Your task to perform on an android device: delete browsing data in the chrome app Image 0: 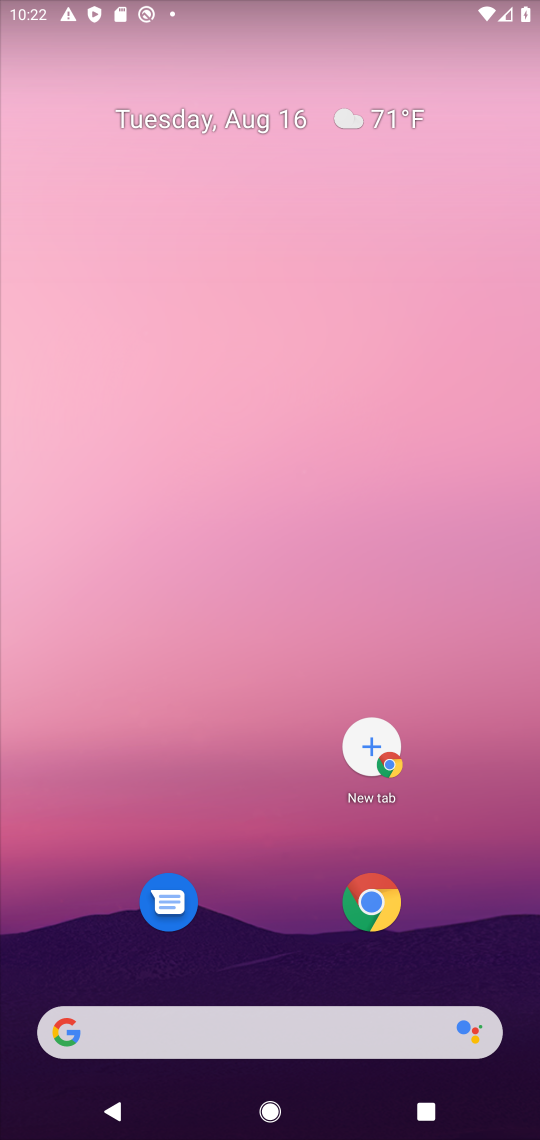
Step 0: click (368, 893)
Your task to perform on an android device: delete browsing data in the chrome app Image 1: 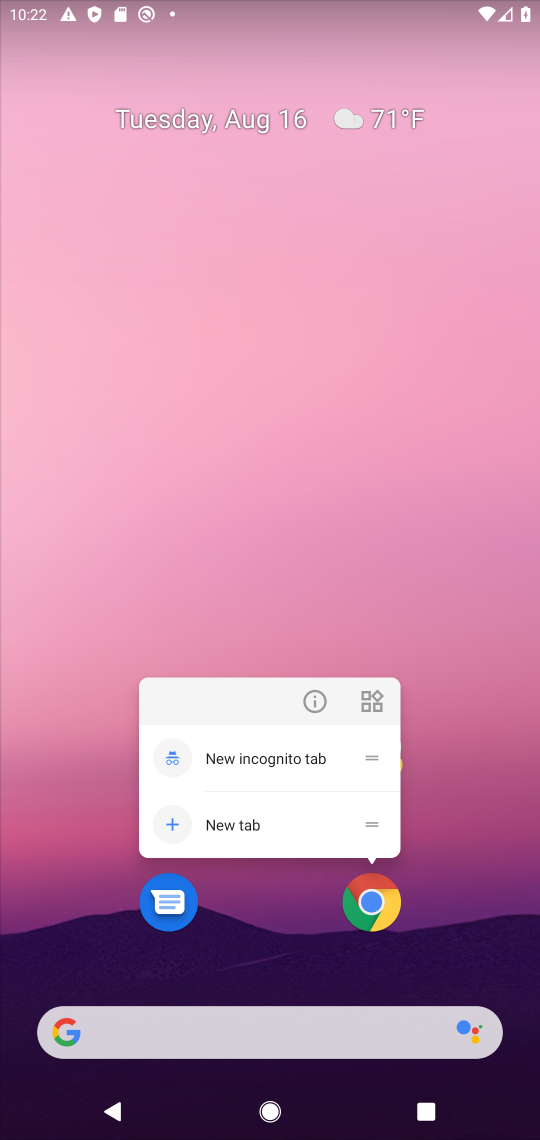
Step 1: click (373, 903)
Your task to perform on an android device: delete browsing data in the chrome app Image 2: 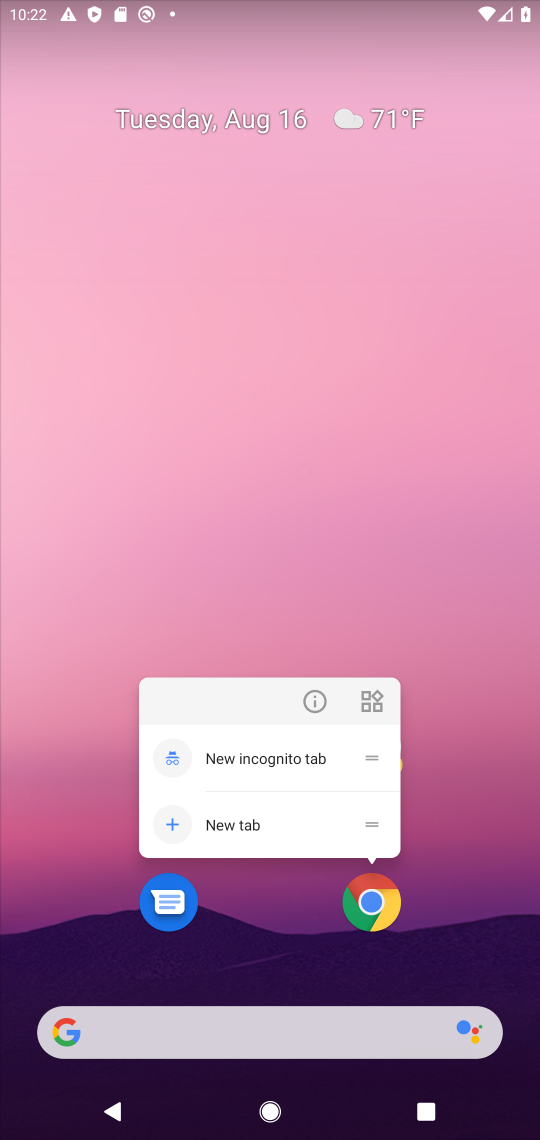
Step 2: click (372, 893)
Your task to perform on an android device: delete browsing data in the chrome app Image 3: 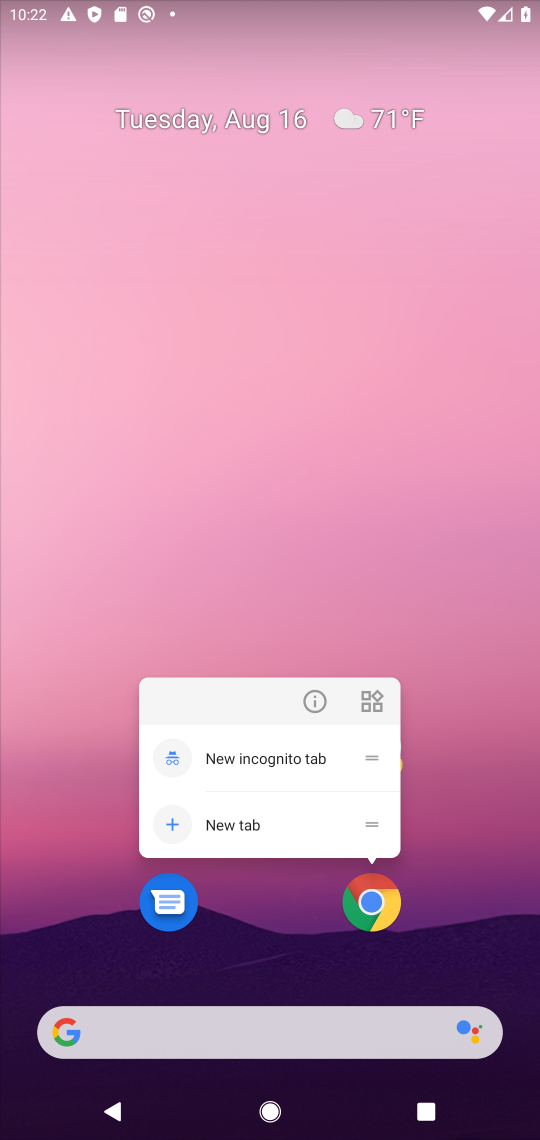
Step 3: click (372, 893)
Your task to perform on an android device: delete browsing data in the chrome app Image 4: 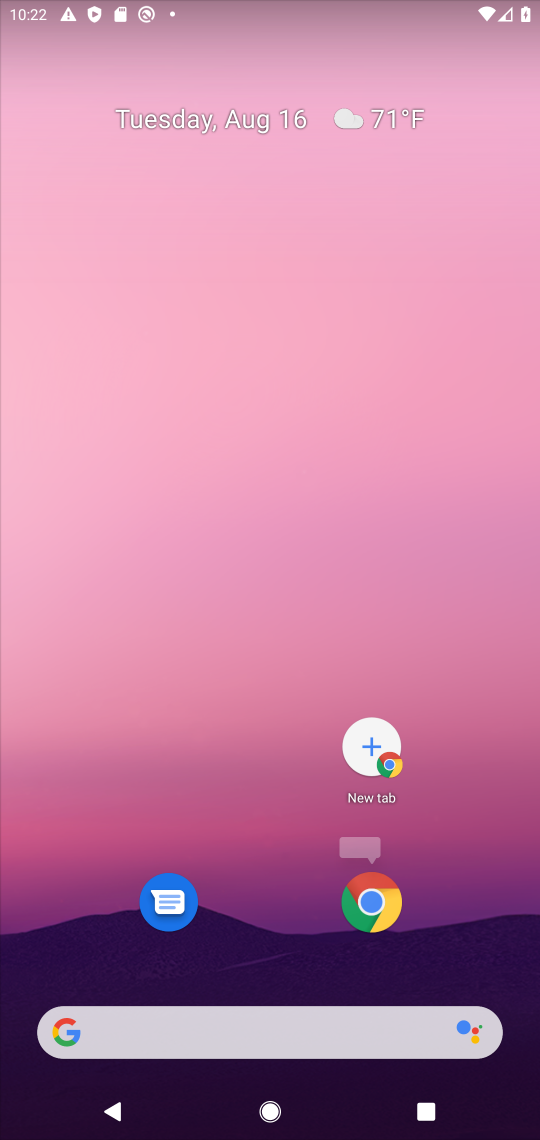
Step 4: click (372, 893)
Your task to perform on an android device: delete browsing data in the chrome app Image 5: 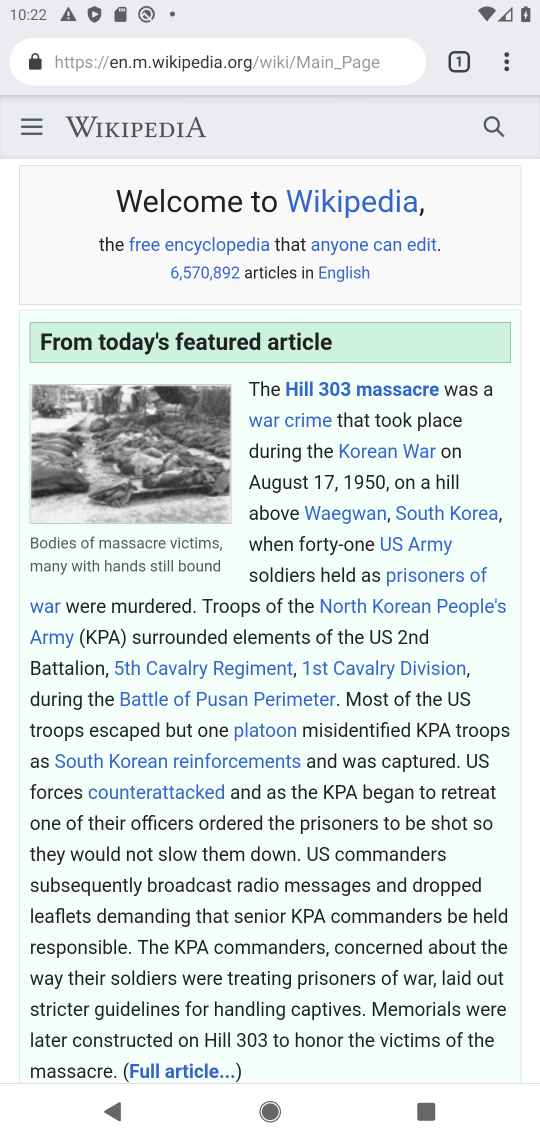
Step 5: click (505, 61)
Your task to perform on an android device: delete browsing data in the chrome app Image 6: 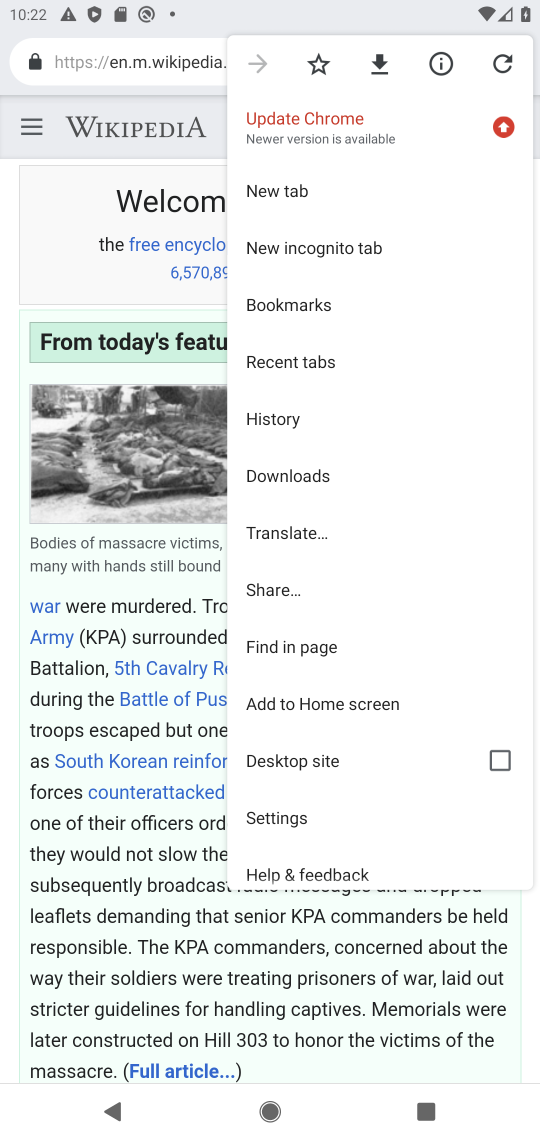
Step 6: click (269, 422)
Your task to perform on an android device: delete browsing data in the chrome app Image 7: 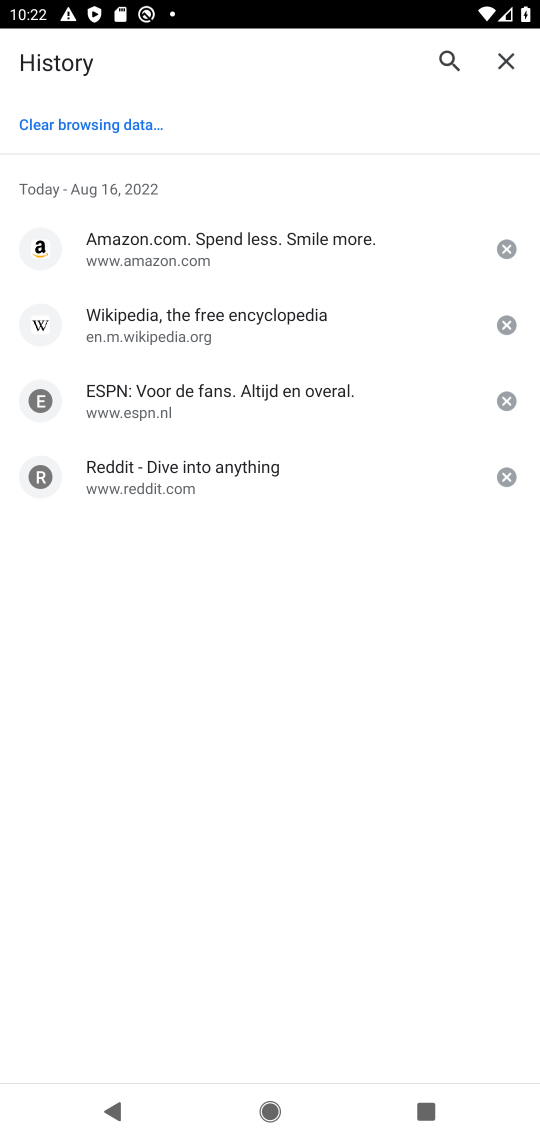
Step 7: click (94, 125)
Your task to perform on an android device: delete browsing data in the chrome app Image 8: 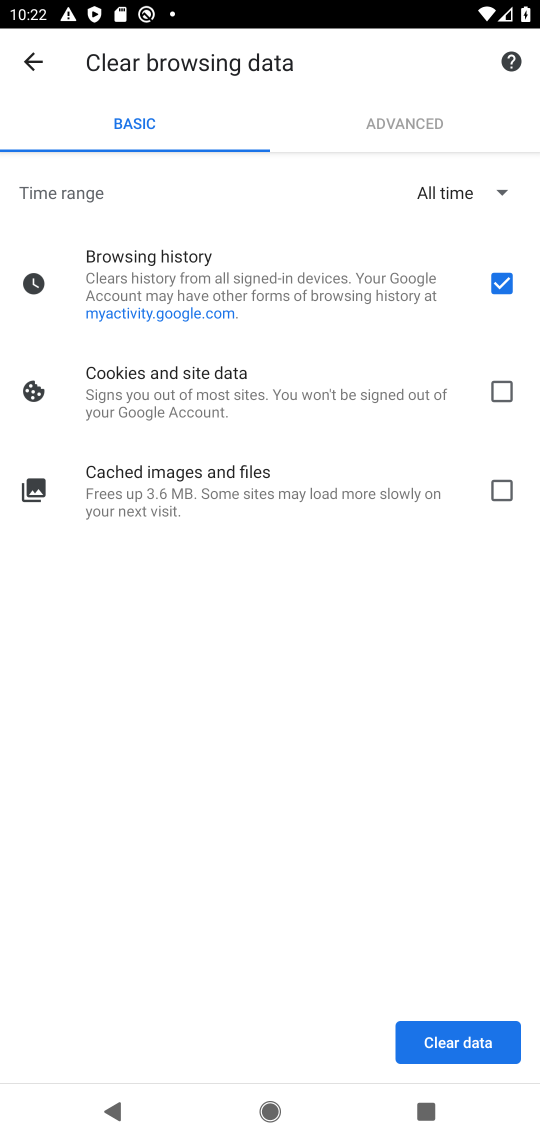
Step 8: click (502, 497)
Your task to perform on an android device: delete browsing data in the chrome app Image 9: 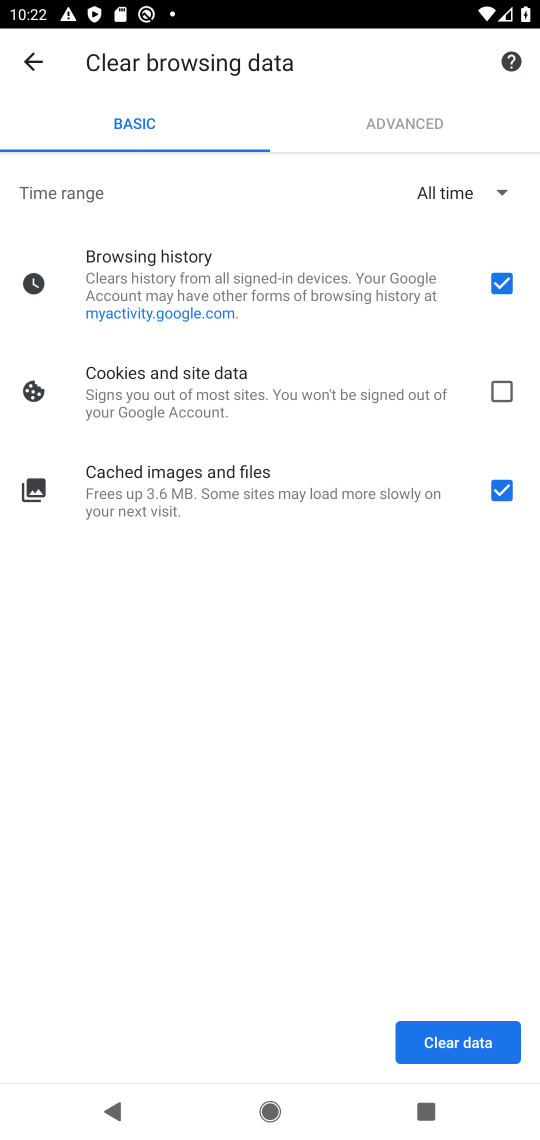
Step 9: click (504, 390)
Your task to perform on an android device: delete browsing data in the chrome app Image 10: 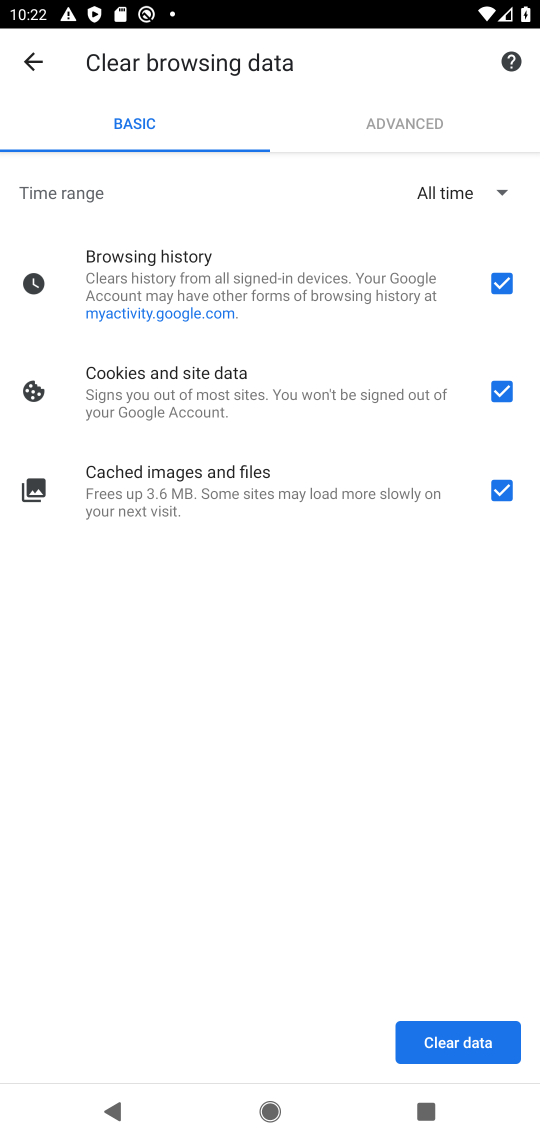
Step 10: click (412, 1057)
Your task to perform on an android device: delete browsing data in the chrome app Image 11: 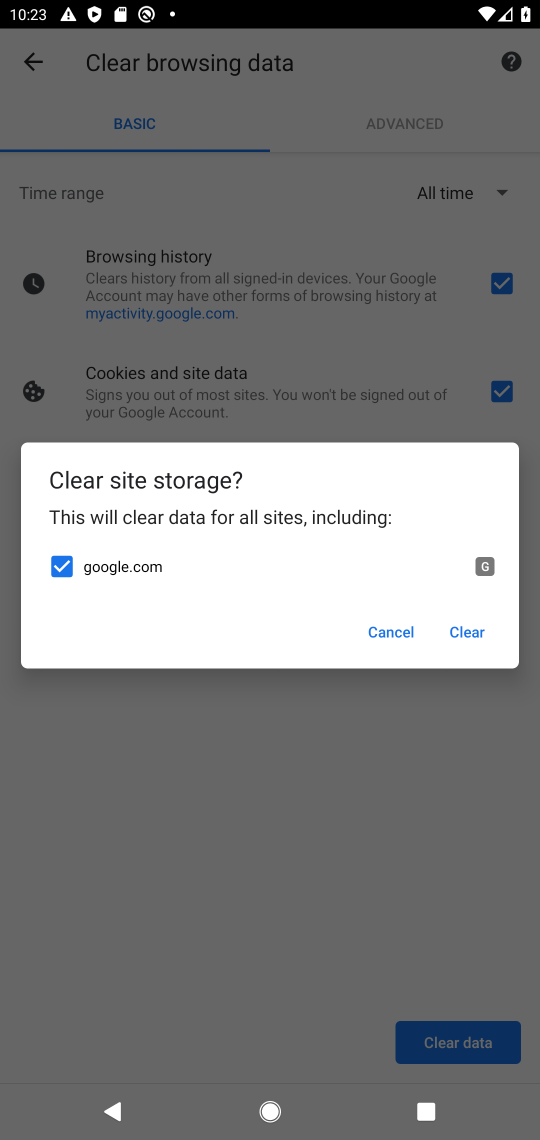
Step 11: click (455, 631)
Your task to perform on an android device: delete browsing data in the chrome app Image 12: 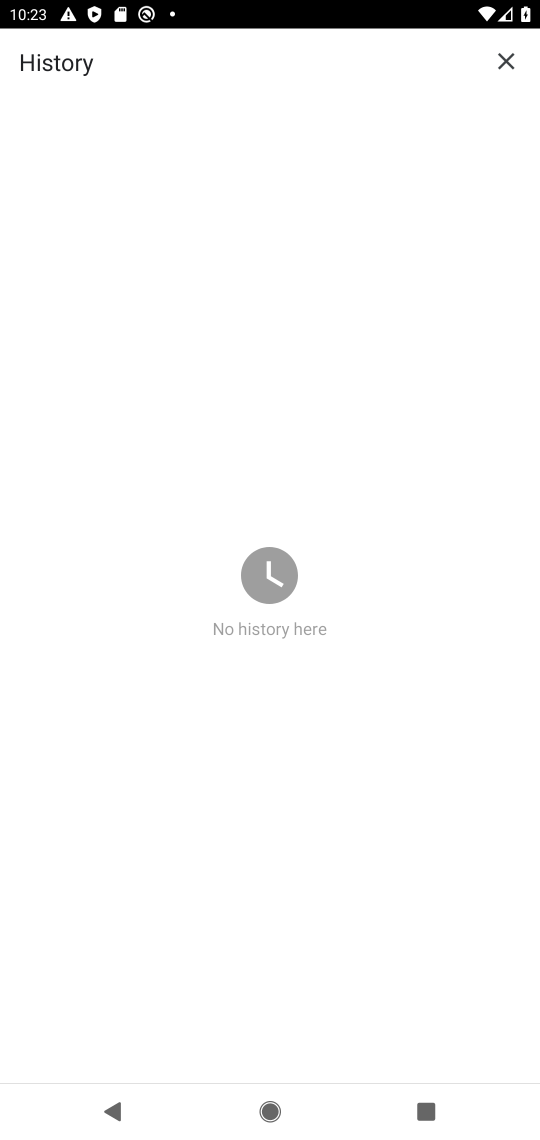
Step 12: task complete